Your task to perform on an android device: open chrome and create a bookmark for the current page Image 0: 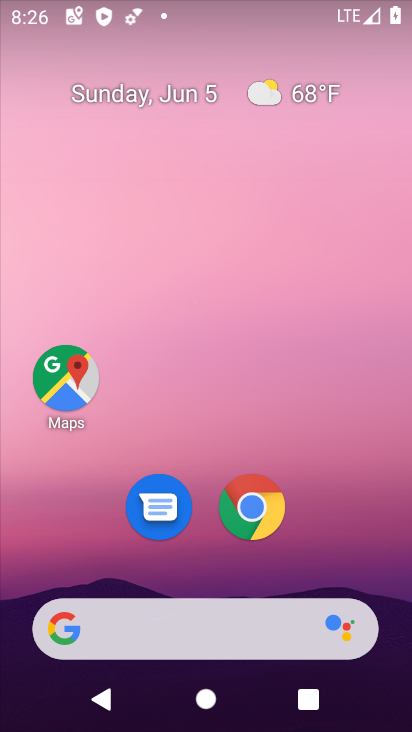
Step 0: drag from (213, 566) to (261, 116)
Your task to perform on an android device: open chrome and create a bookmark for the current page Image 1: 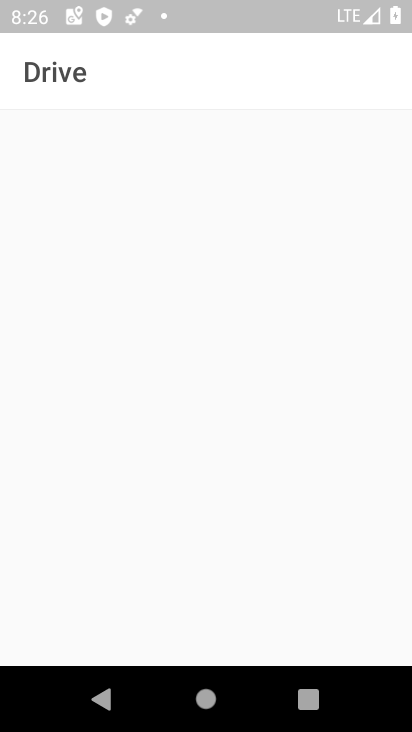
Step 1: press home button
Your task to perform on an android device: open chrome and create a bookmark for the current page Image 2: 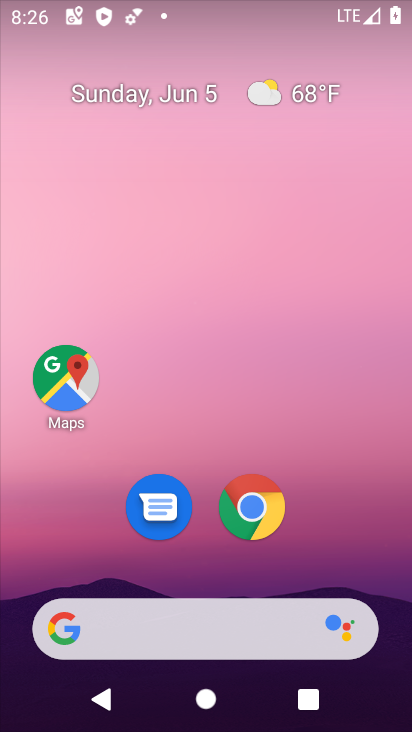
Step 2: click (260, 513)
Your task to perform on an android device: open chrome and create a bookmark for the current page Image 3: 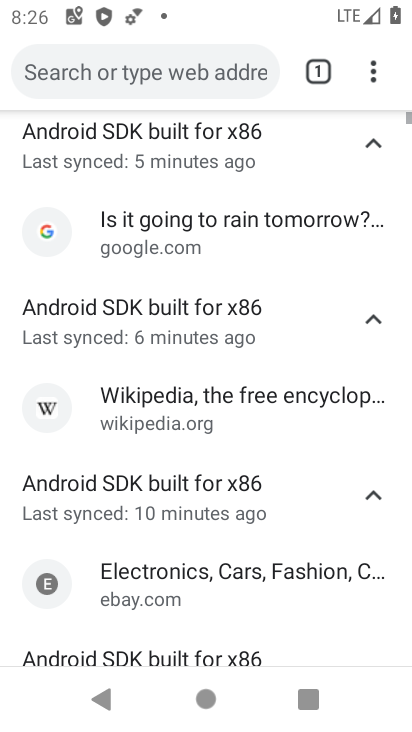
Step 3: click (371, 69)
Your task to perform on an android device: open chrome and create a bookmark for the current page Image 4: 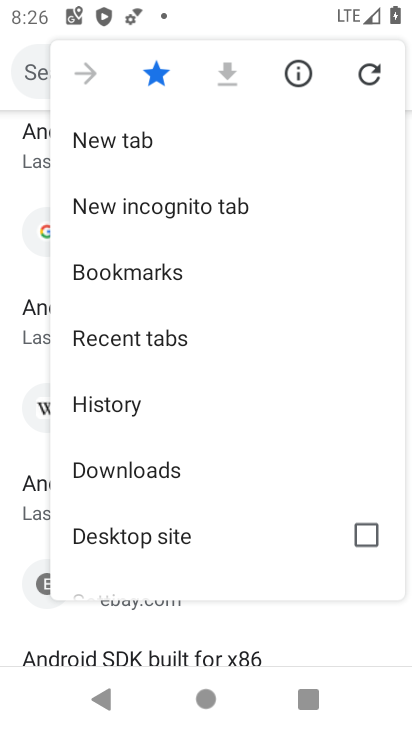
Step 4: task complete